Your task to perform on an android device: What's the weather today? Image 0: 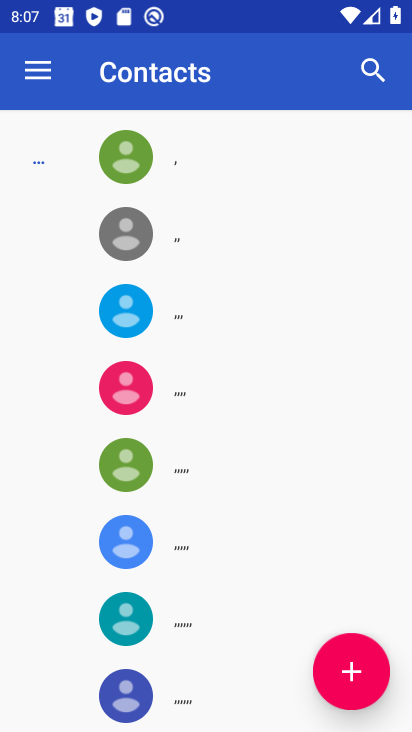
Step 0: press home button
Your task to perform on an android device: What's the weather today? Image 1: 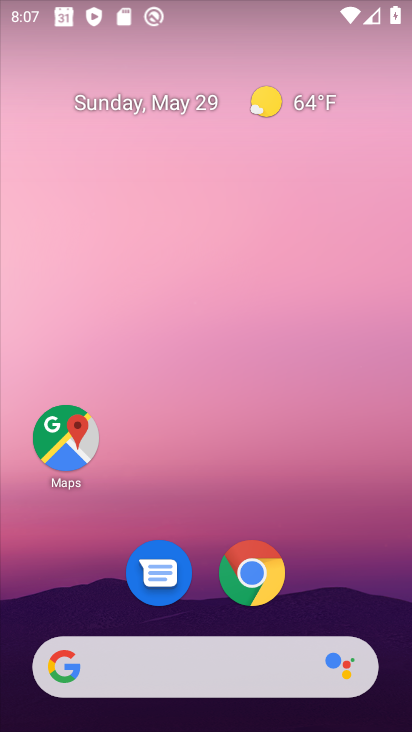
Step 1: drag from (94, 561) to (206, 100)
Your task to perform on an android device: What's the weather today? Image 2: 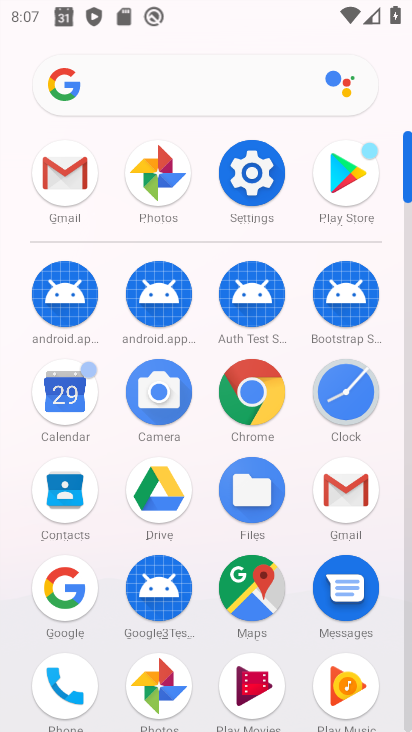
Step 2: drag from (200, 617) to (235, 364)
Your task to perform on an android device: What's the weather today? Image 3: 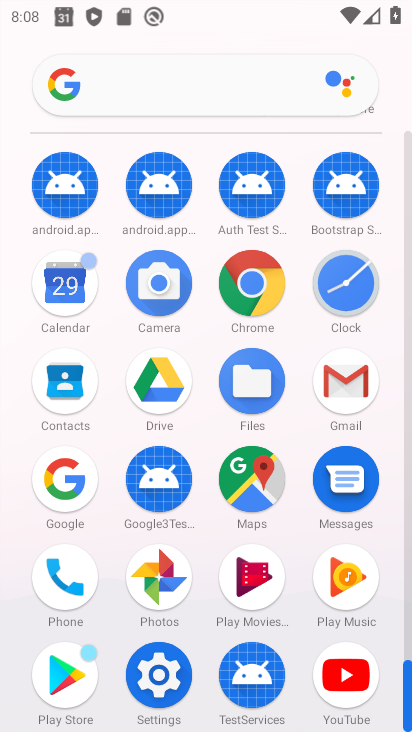
Step 3: click (49, 484)
Your task to perform on an android device: What's the weather today? Image 4: 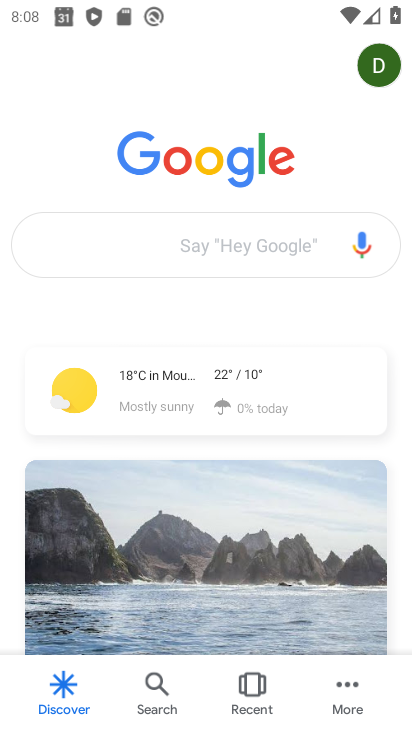
Step 4: click (166, 412)
Your task to perform on an android device: What's the weather today? Image 5: 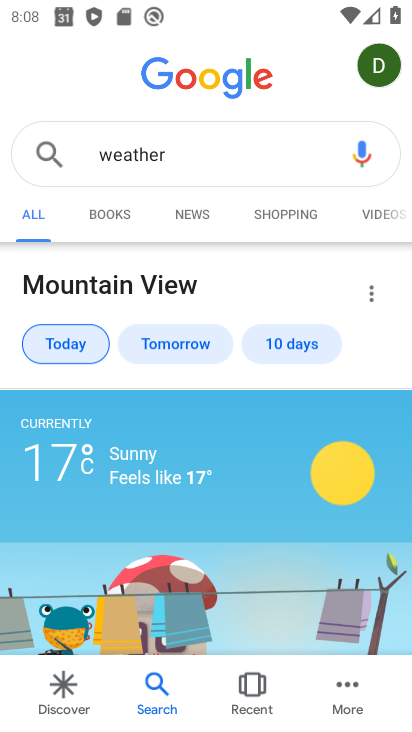
Step 5: task complete